Your task to perform on an android device: Show me recent news Image 0: 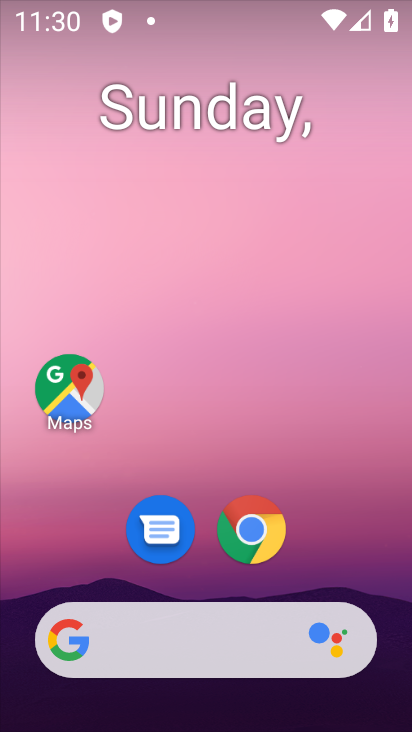
Step 0: drag from (72, 243) to (406, 262)
Your task to perform on an android device: Show me recent news Image 1: 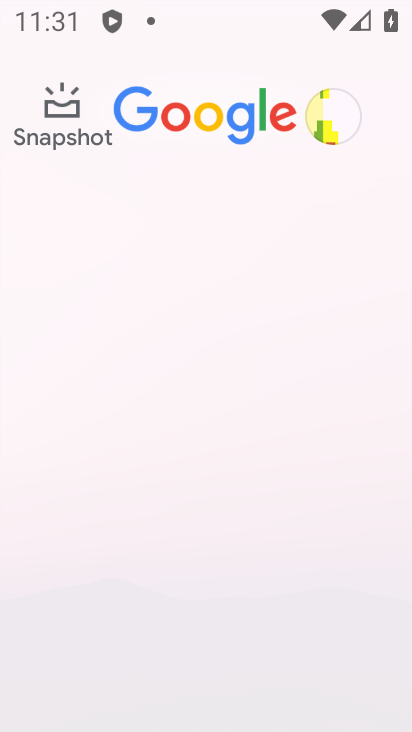
Step 1: task complete